Your task to perform on an android device: turn on bluetooth scan Image 0: 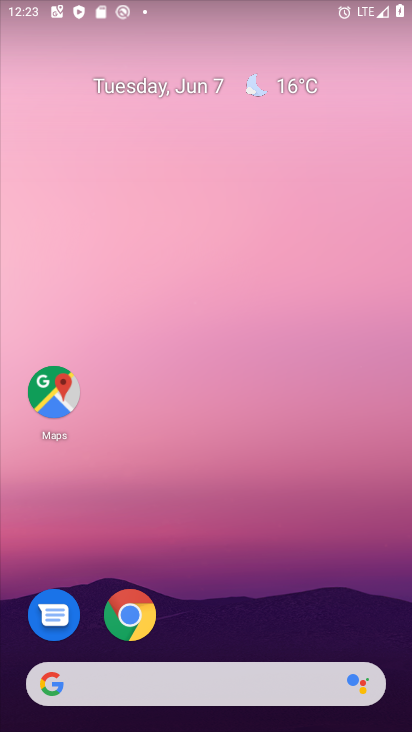
Step 0: press home button
Your task to perform on an android device: turn on bluetooth scan Image 1: 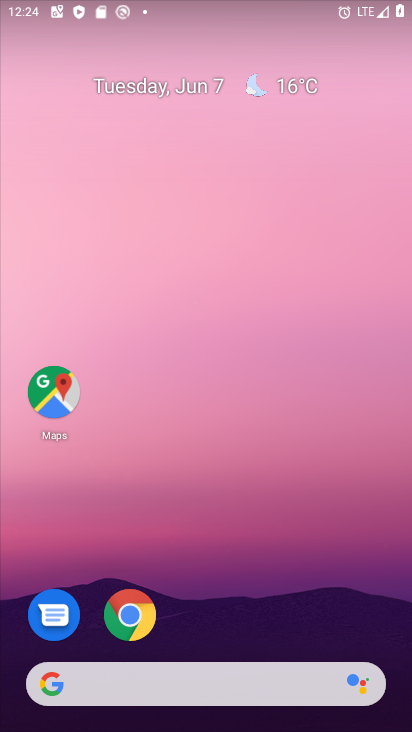
Step 1: drag from (217, 639) to (215, 83)
Your task to perform on an android device: turn on bluetooth scan Image 2: 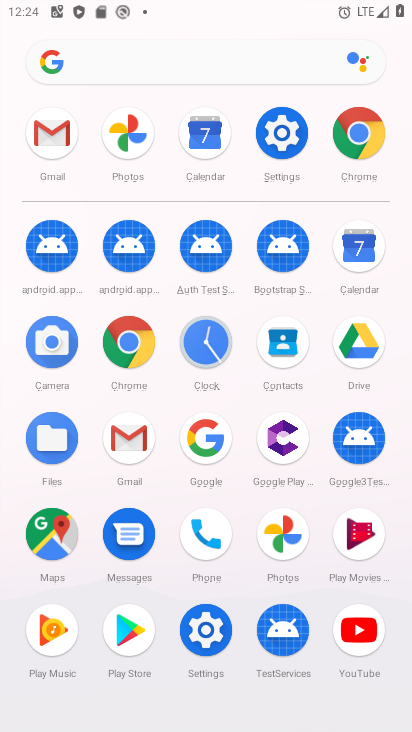
Step 2: click (283, 128)
Your task to perform on an android device: turn on bluetooth scan Image 3: 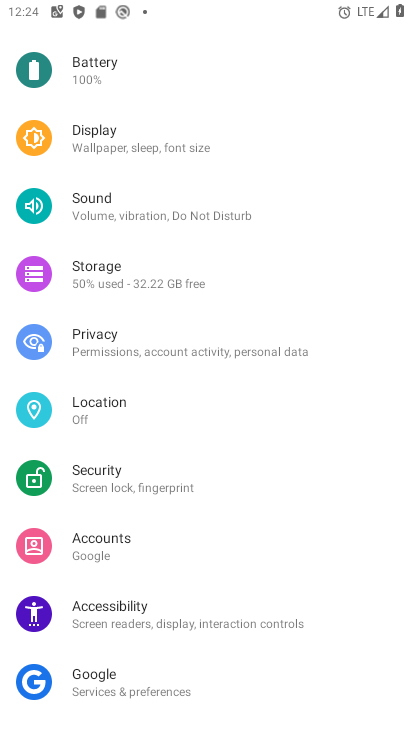
Step 3: click (116, 407)
Your task to perform on an android device: turn on bluetooth scan Image 4: 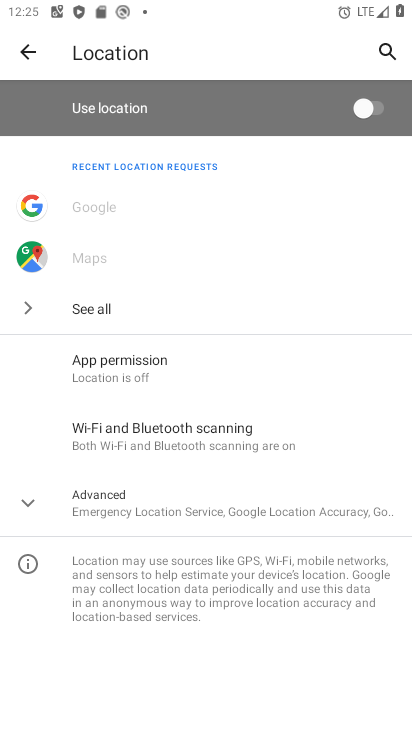
Step 4: click (159, 428)
Your task to perform on an android device: turn on bluetooth scan Image 5: 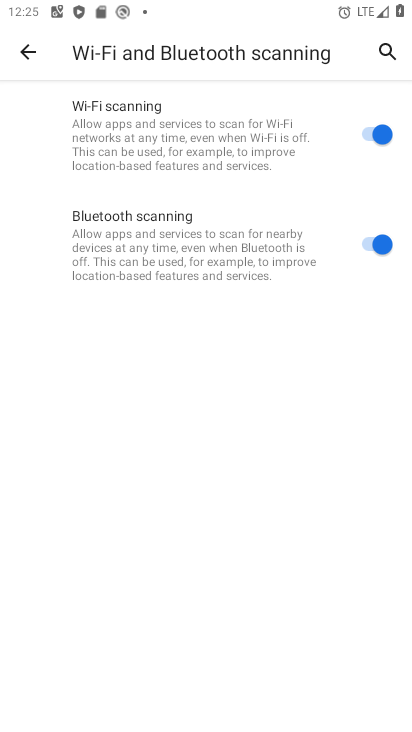
Step 5: task complete